Your task to perform on an android device: find photos in the google photos app Image 0: 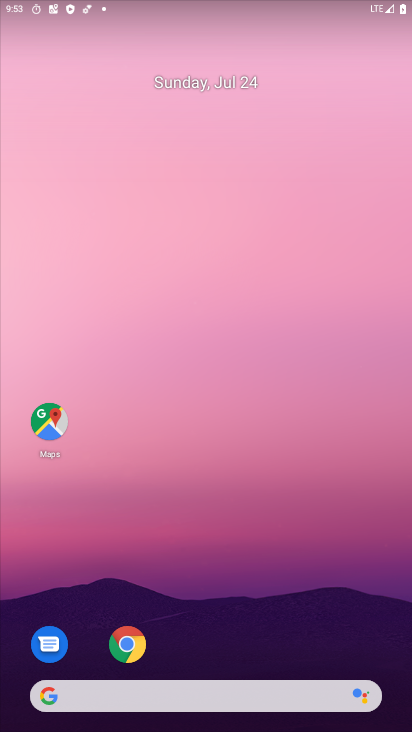
Step 0: drag from (224, 609) to (224, 241)
Your task to perform on an android device: find photos in the google photos app Image 1: 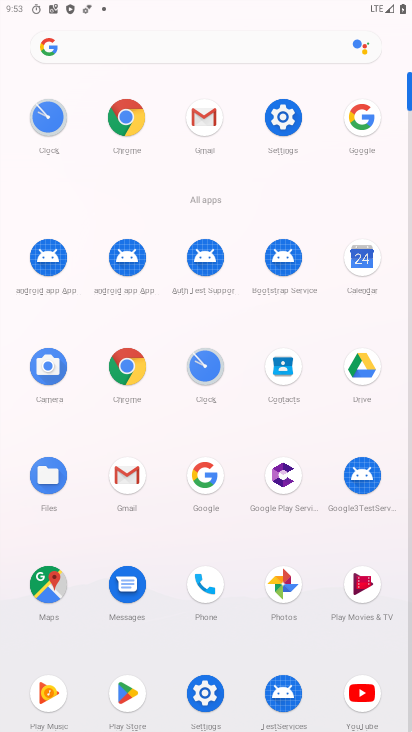
Step 1: click (276, 581)
Your task to perform on an android device: find photos in the google photos app Image 2: 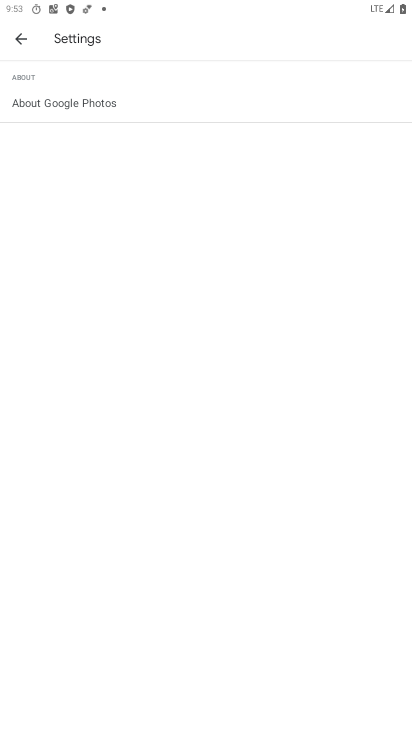
Step 2: click (19, 39)
Your task to perform on an android device: find photos in the google photos app Image 3: 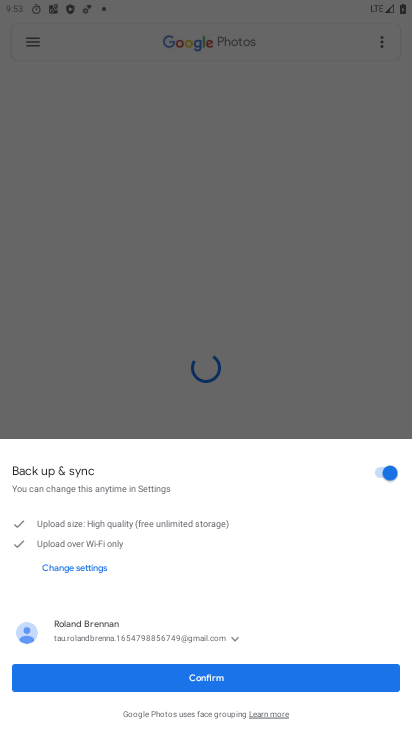
Step 3: click (208, 670)
Your task to perform on an android device: find photos in the google photos app Image 4: 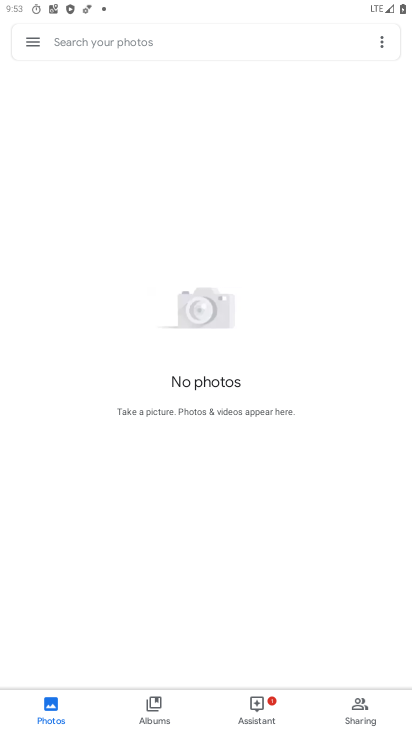
Step 4: task complete